Your task to perform on an android device: View the shopping cart on newegg.com. Add razer nari to the cart on newegg.com Image 0: 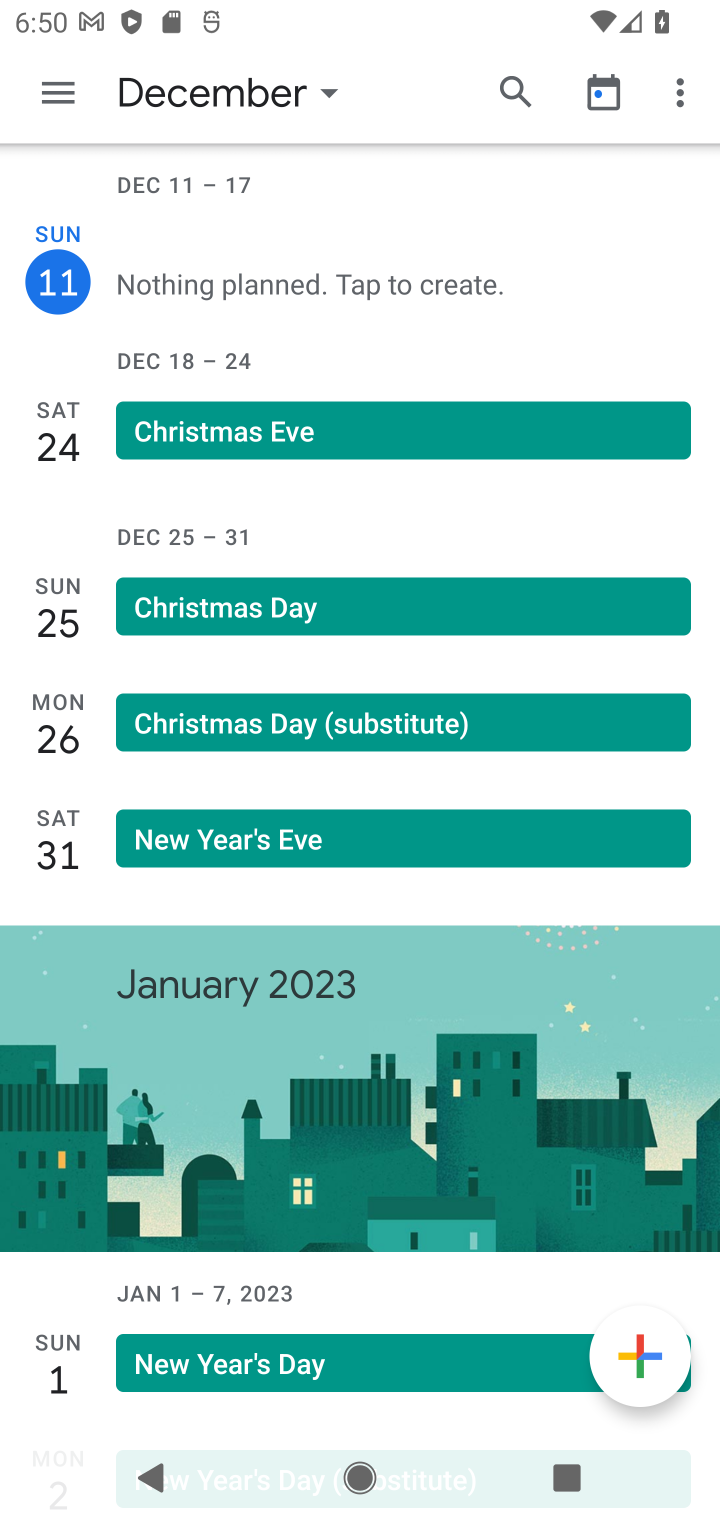
Step 0: press home button
Your task to perform on an android device: View the shopping cart on newegg.com. Add razer nari to the cart on newegg.com Image 1: 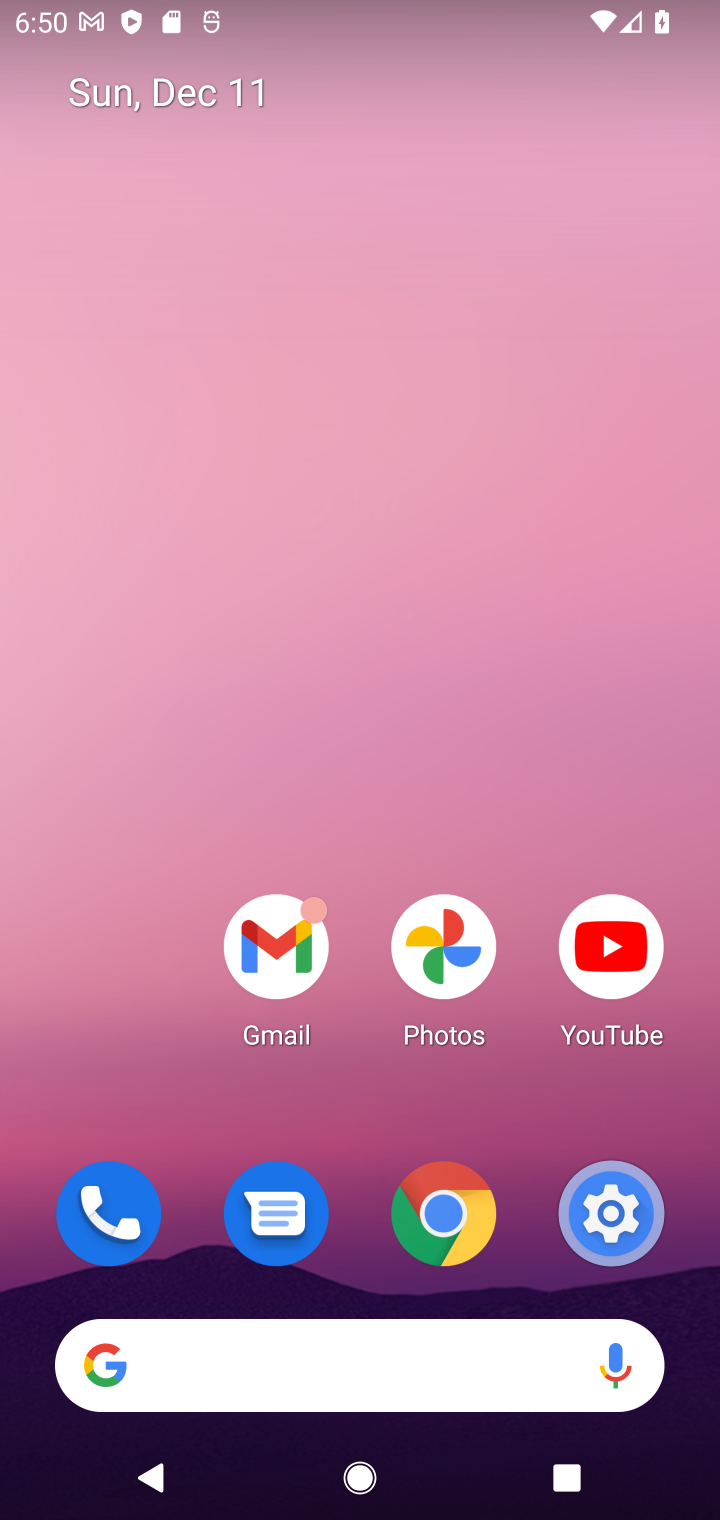
Step 1: press home button
Your task to perform on an android device: View the shopping cart on newegg.com. Add razer nari to the cart on newegg.com Image 2: 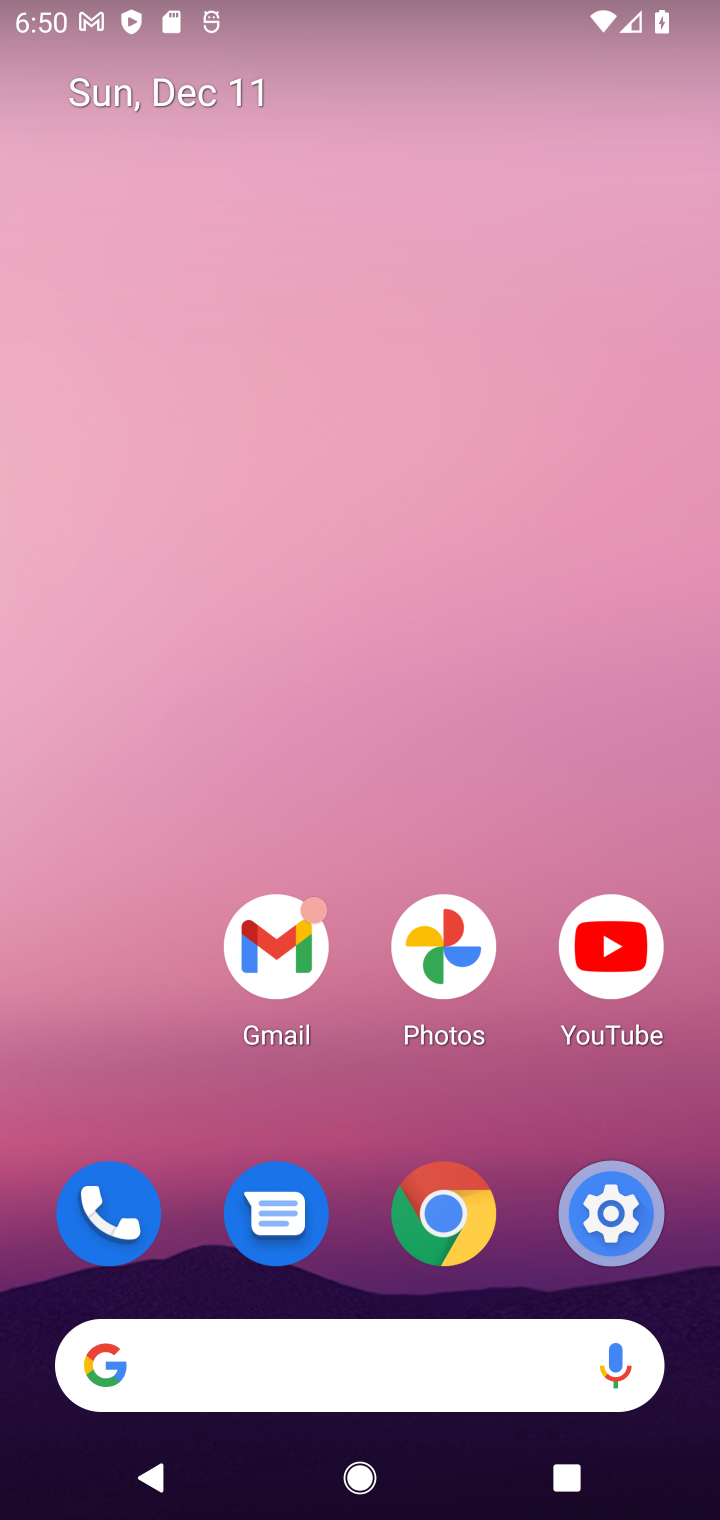
Step 2: click (422, 1377)
Your task to perform on an android device: View the shopping cart on newegg.com. Add razer nari to the cart on newegg.com Image 3: 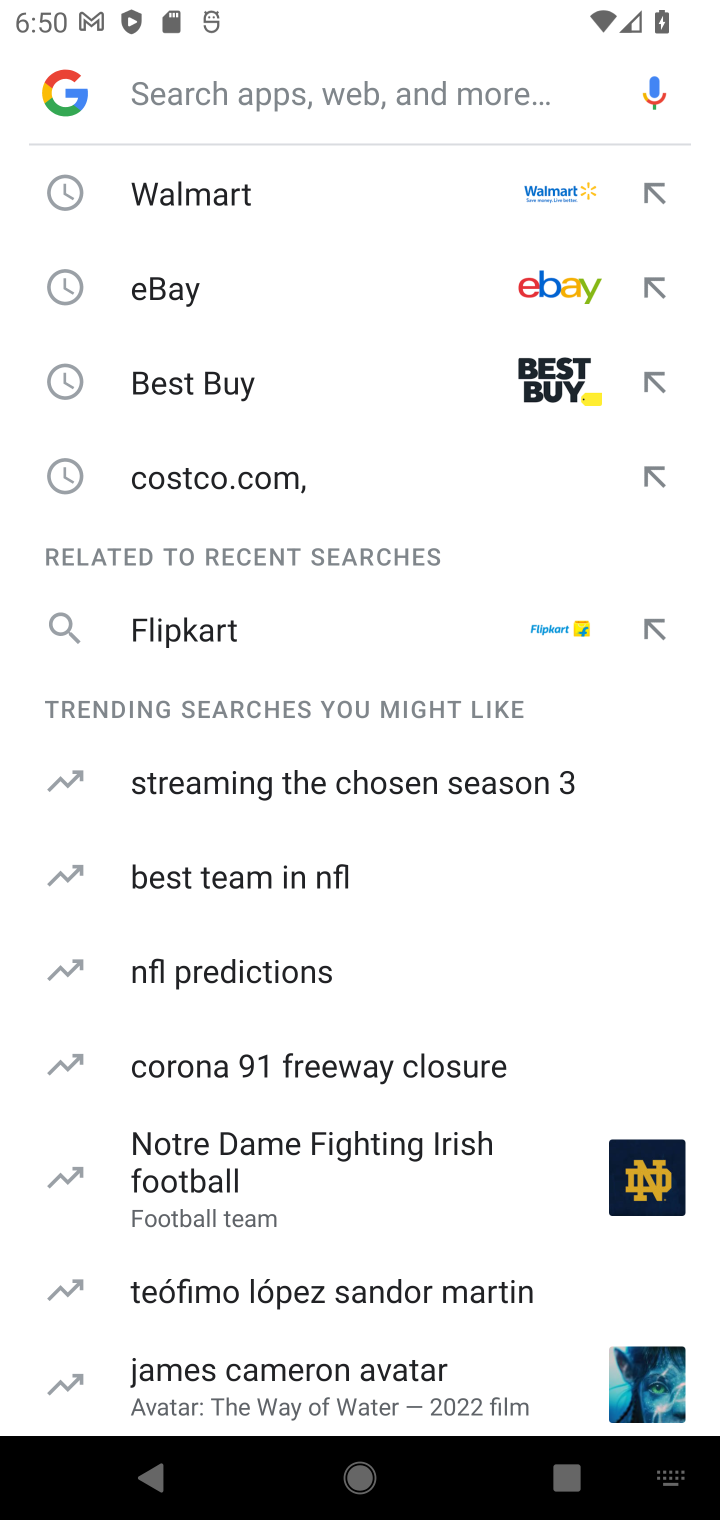
Step 3: type "newegg"
Your task to perform on an android device: View the shopping cart on newegg.com. Add razer nari to the cart on newegg.com Image 4: 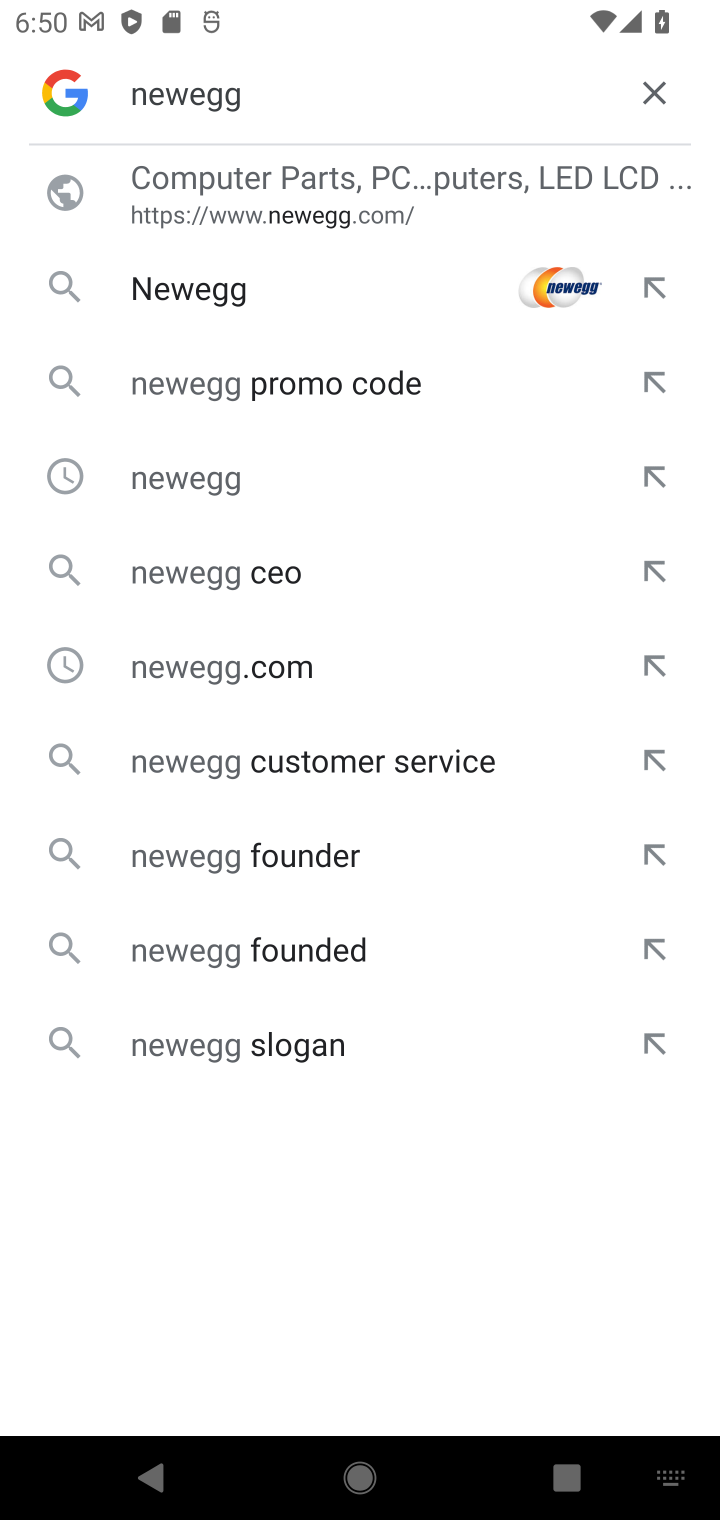
Step 4: click (354, 213)
Your task to perform on an android device: View the shopping cart on newegg.com. Add razer nari to the cart on newegg.com Image 5: 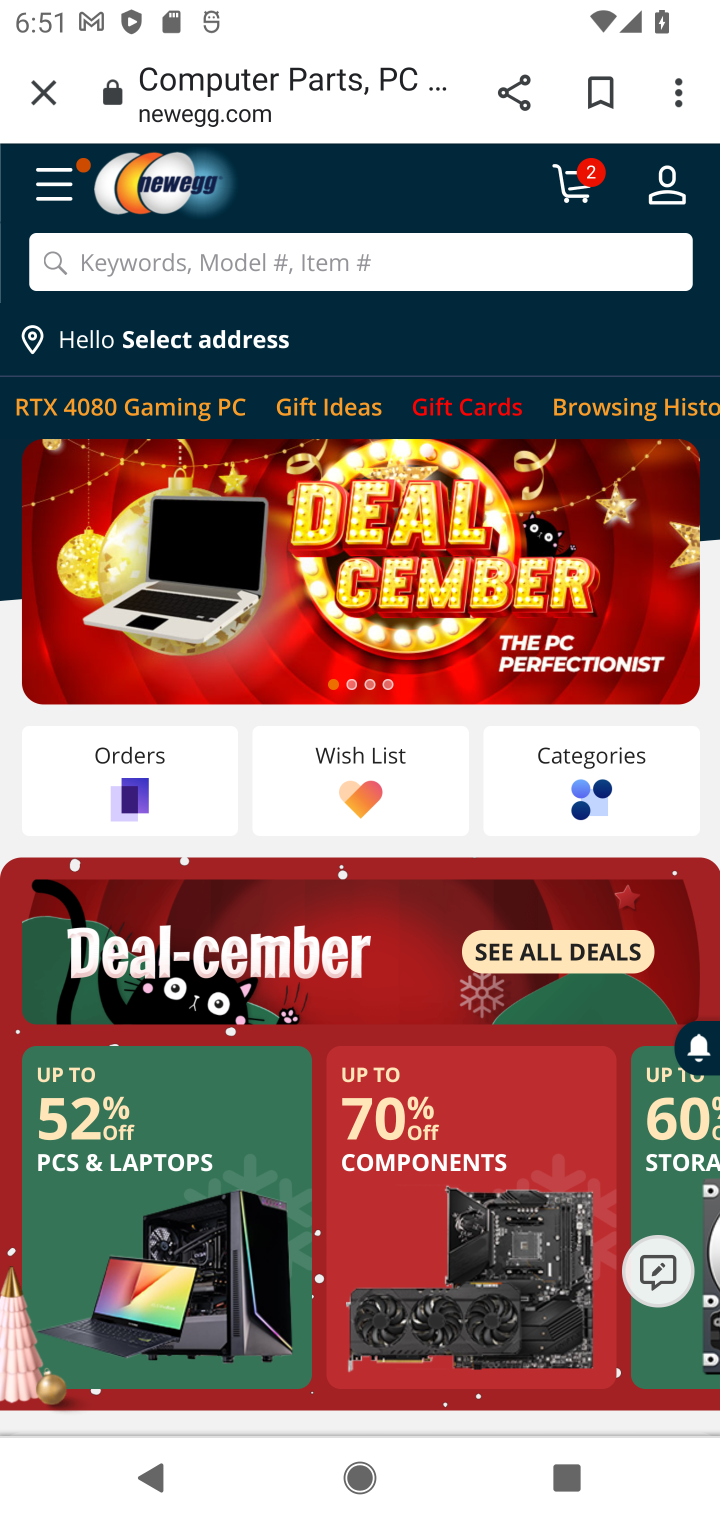
Step 5: click (223, 233)
Your task to perform on an android device: View the shopping cart on newegg.com. Add razer nari to the cart on newegg.com Image 6: 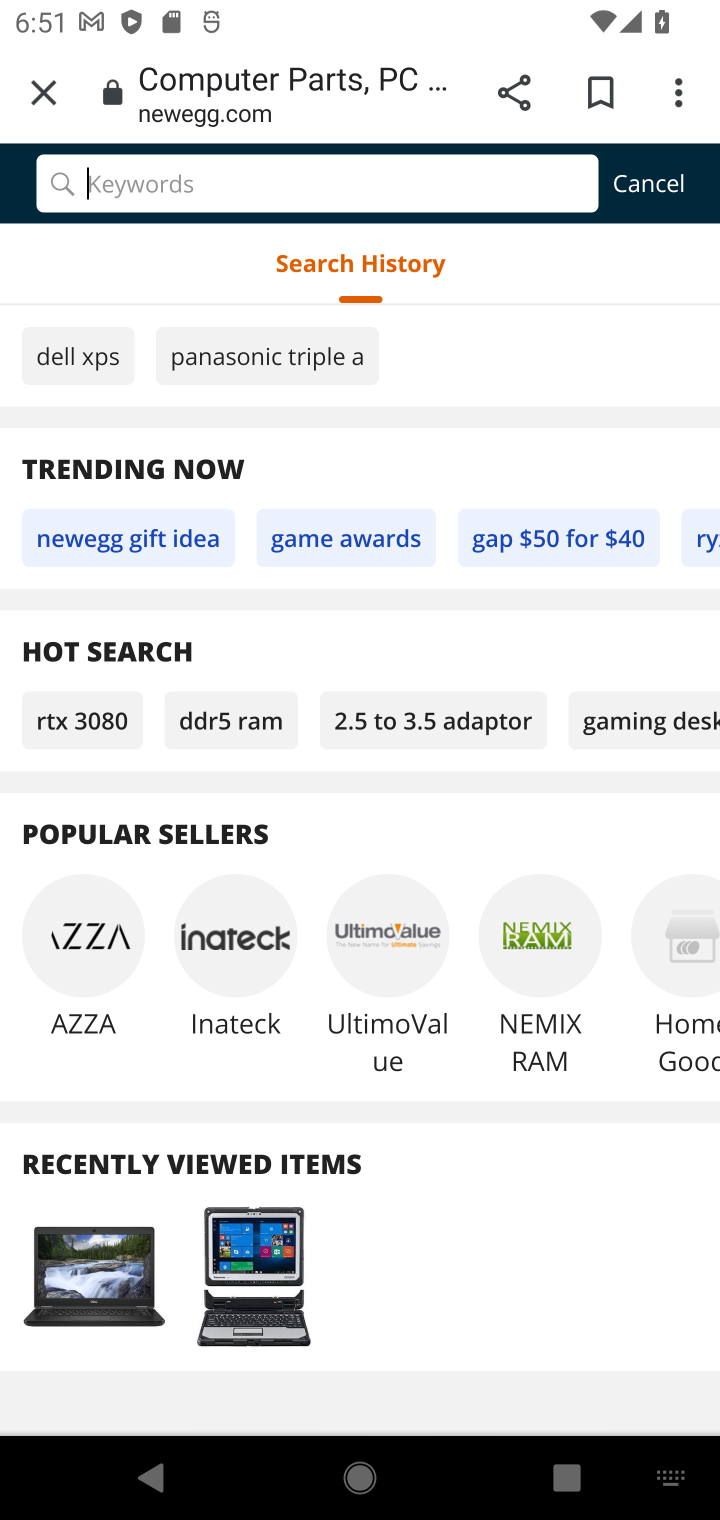
Step 6: type "razer nari"
Your task to perform on an android device: View the shopping cart on newegg.com. Add razer nari to the cart on newegg.com Image 7: 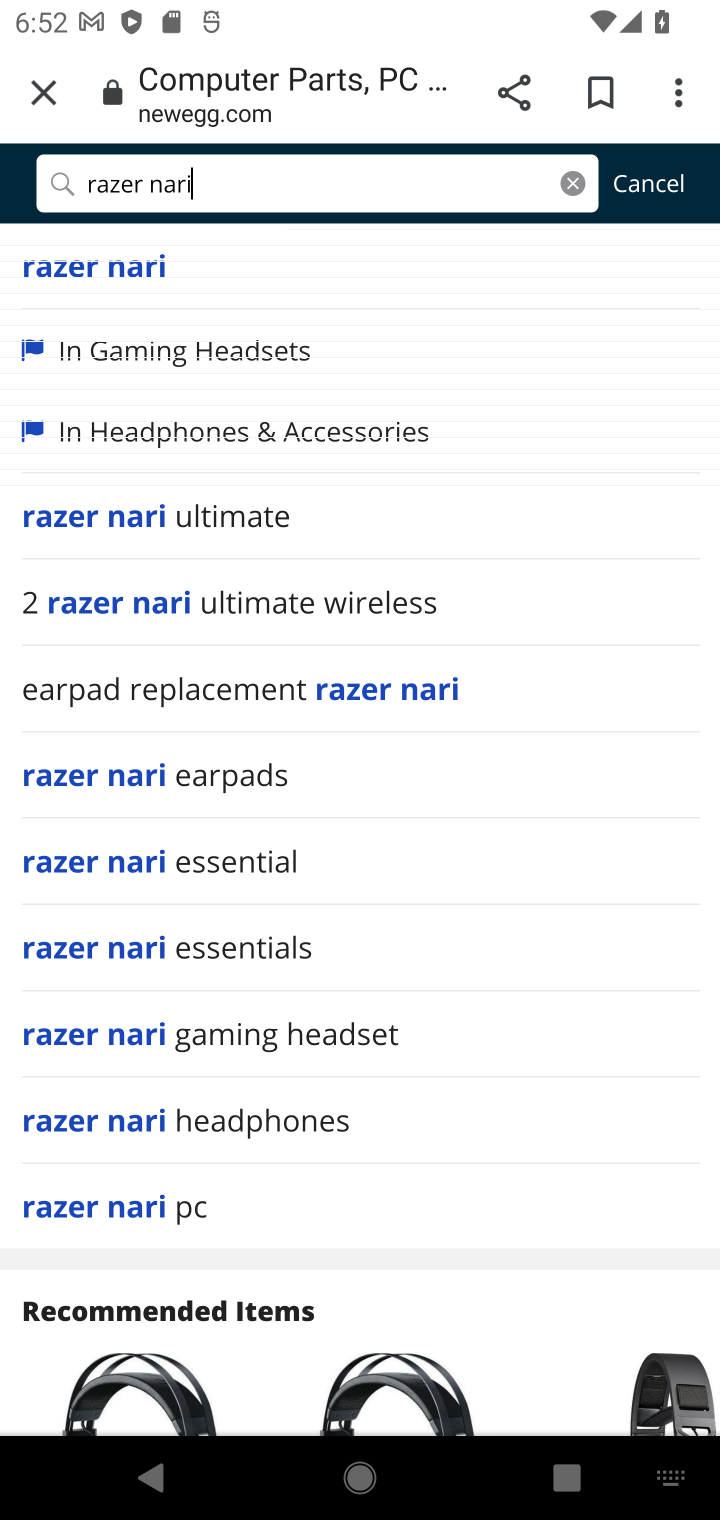
Step 7: click (80, 280)
Your task to perform on an android device: View the shopping cart on newegg.com. Add razer nari to the cart on newegg.com Image 8: 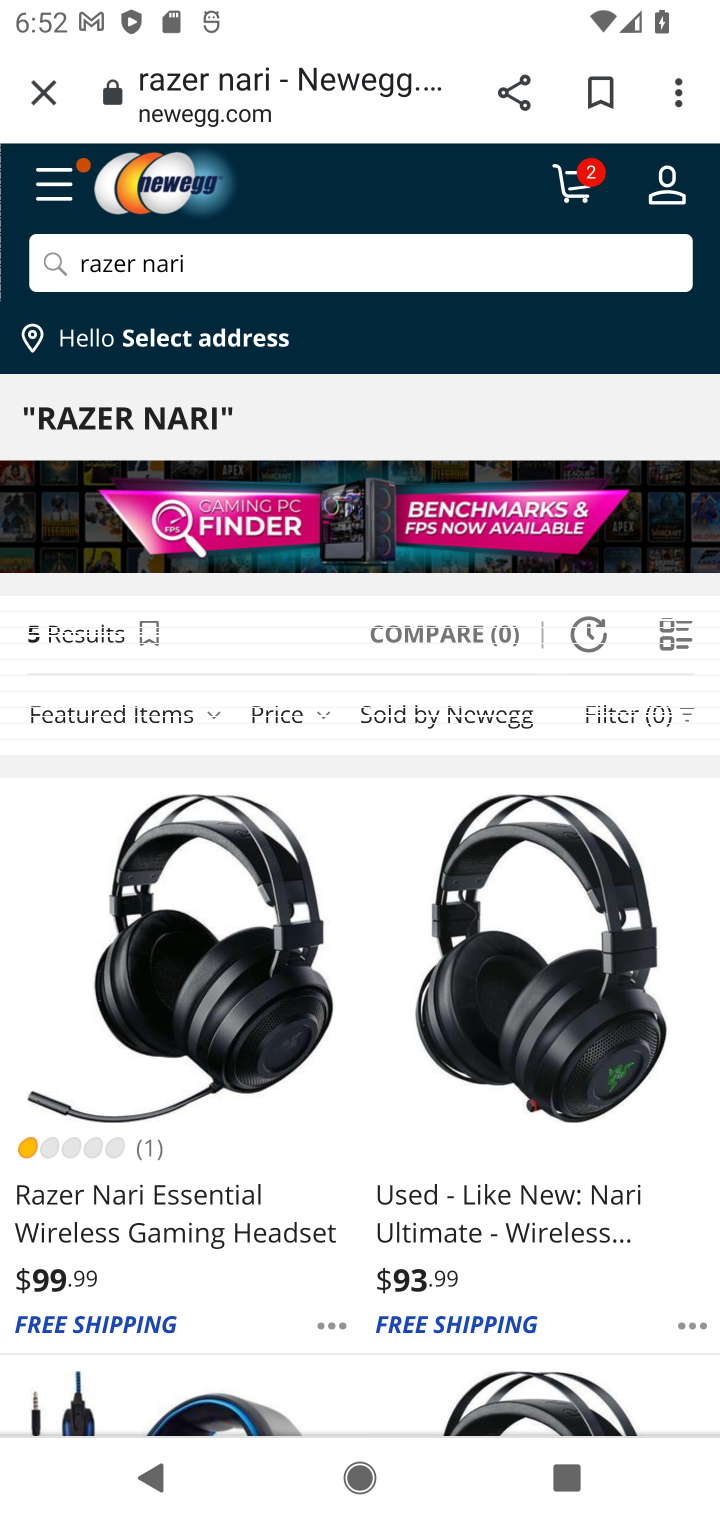
Step 8: click (175, 1146)
Your task to perform on an android device: View the shopping cart on newegg.com. Add razer nari to the cart on newegg.com Image 9: 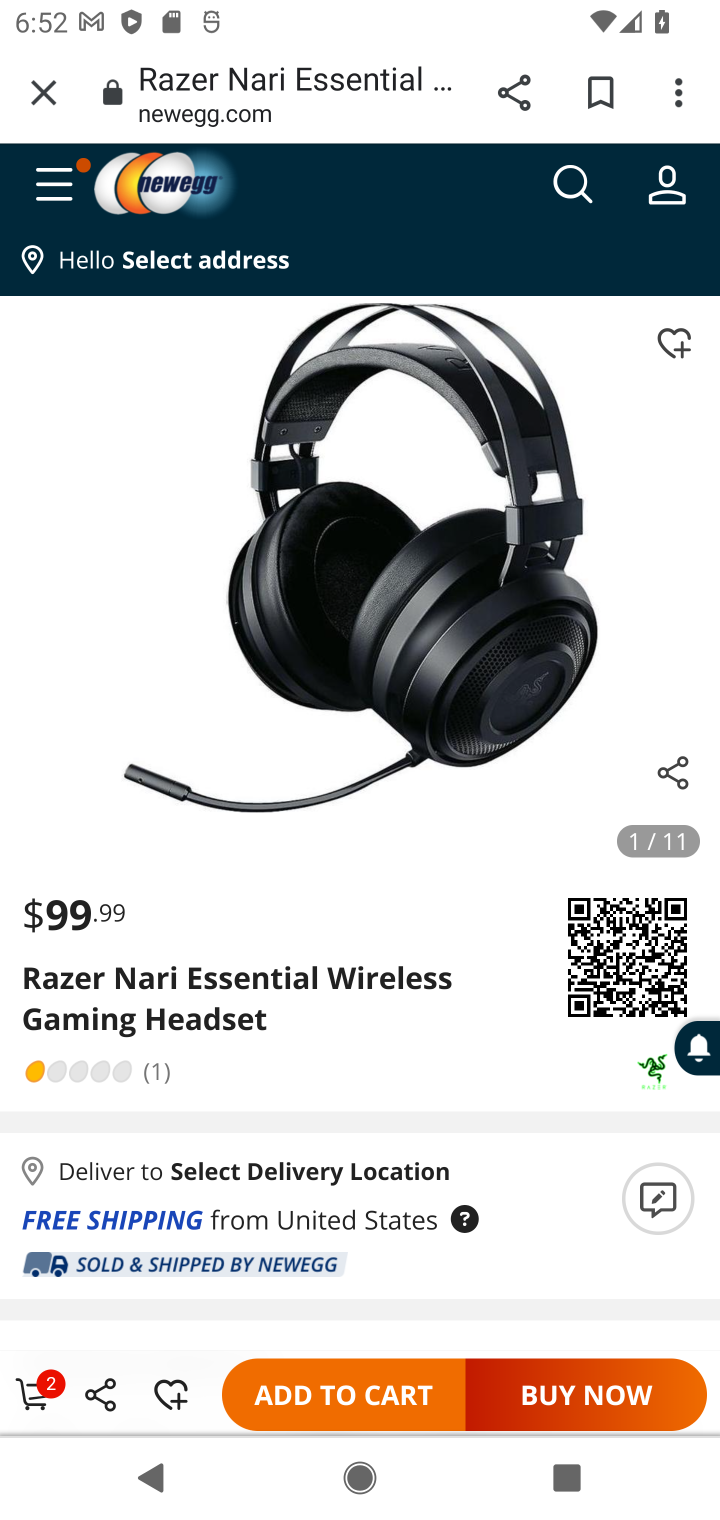
Step 9: click (355, 1391)
Your task to perform on an android device: View the shopping cart on newegg.com. Add razer nari to the cart on newegg.com Image 10: 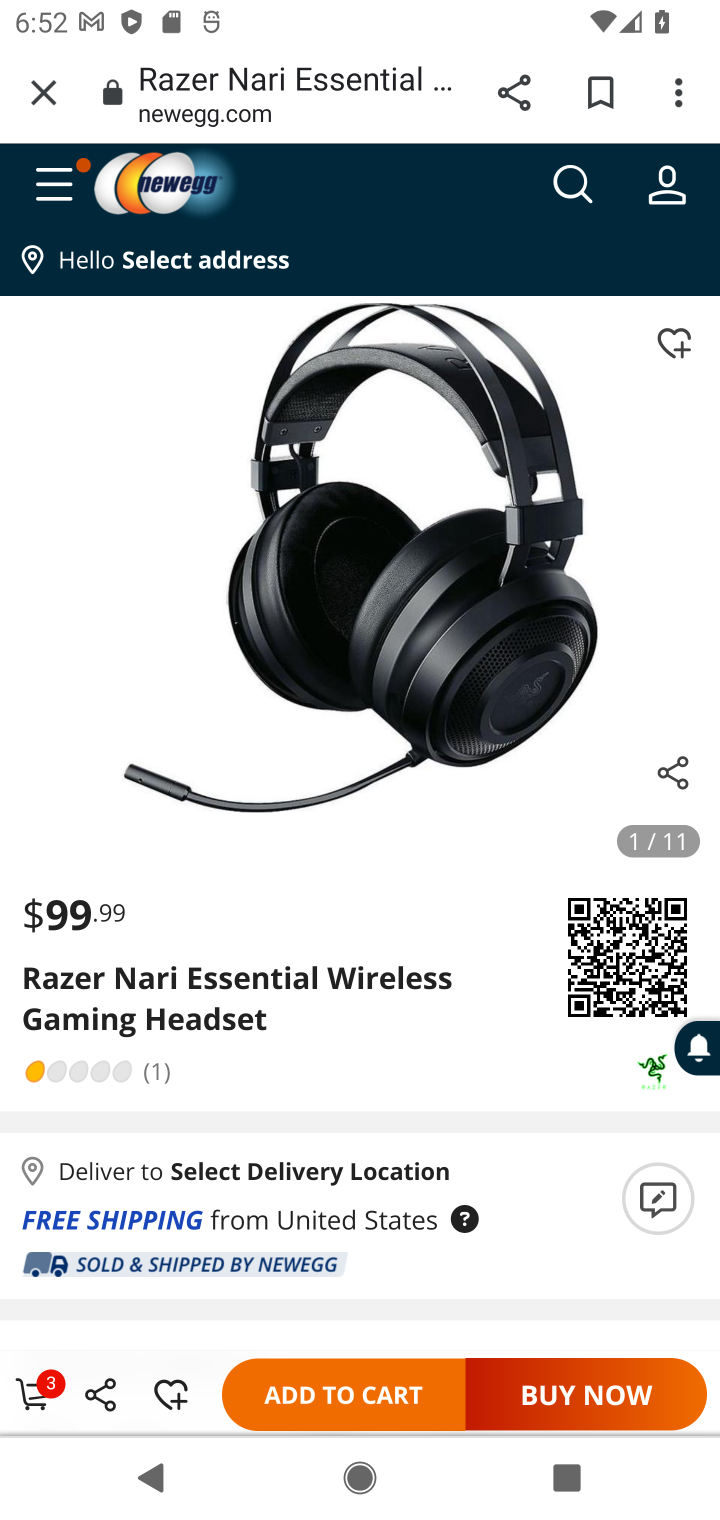
Step 10: task complete